Your task to perform on an android device: What's the weather? Image 0: 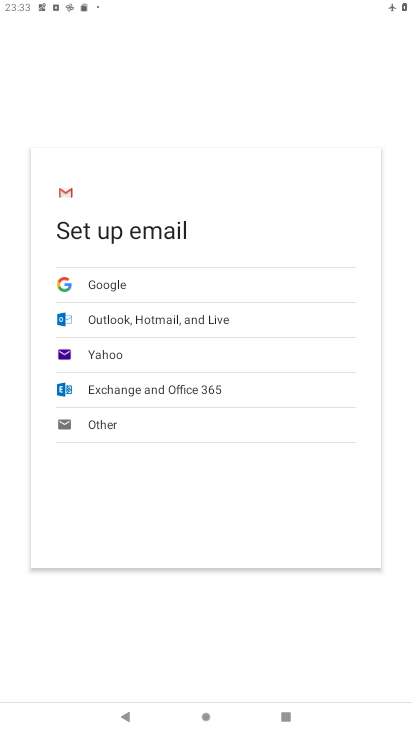
Step 0: press home button
Your task to perform on an android device: What's the weather? Image 1: 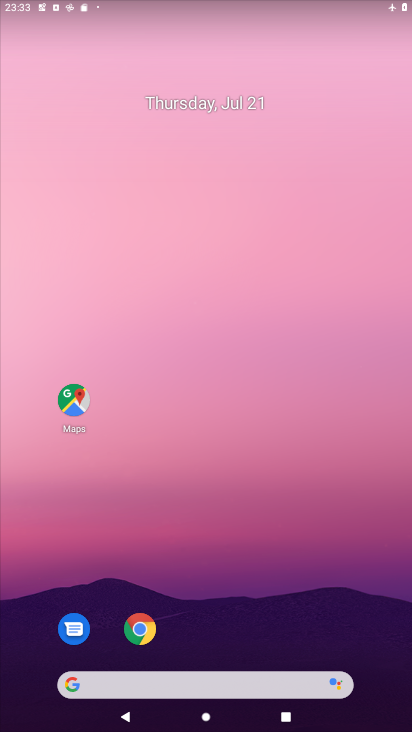
Step 1: drag from (164, 584) to (200, 100)
Your task to perform on an android device: What's the weather? Image 2: 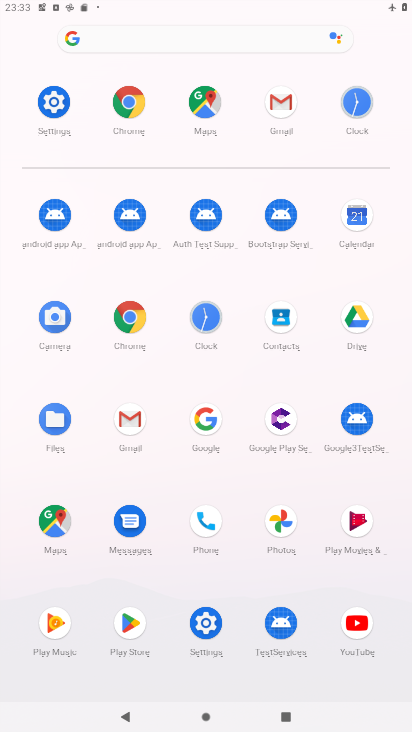
Step 2: click (126, 327)
Your task to perform on an android device: What's the weather? Image 3: 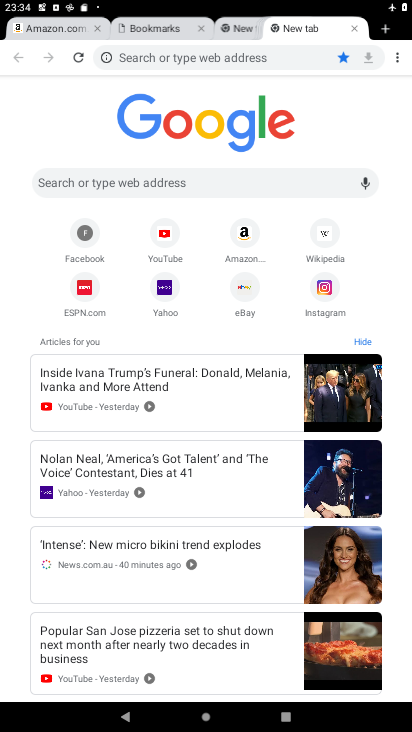
Step 3: click (218, 60)
Your task to perform on an android device: What's the weather? Image 4: 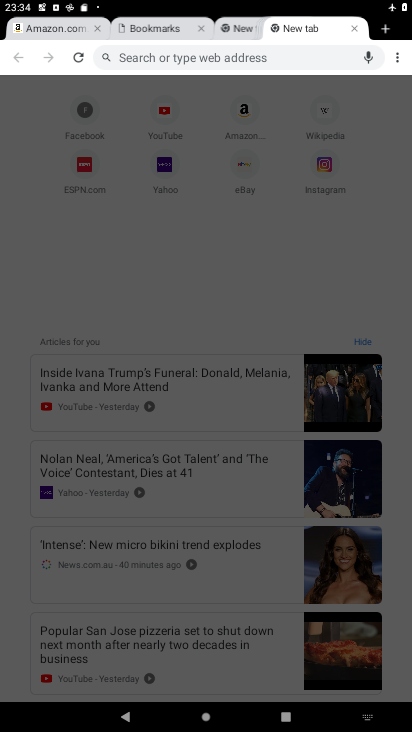
Step 4: type "weather"
Your task to perform on an android device: What's the weather? Image 5: 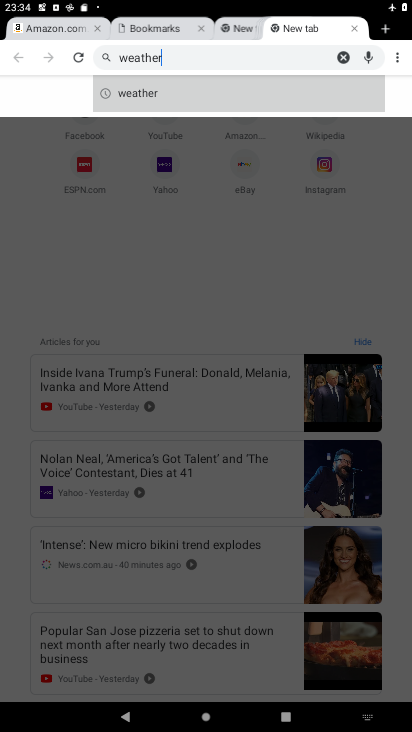
Step 5: type ""
Your task to perform on an android device: What's the weather? Image 6: 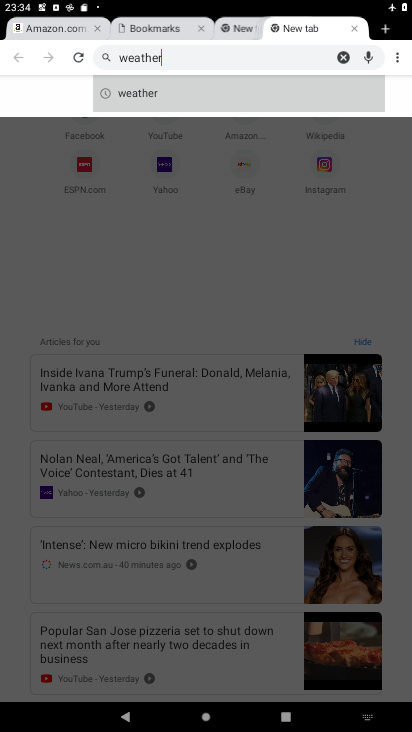
Step 6: click (169, 102)
Your task to perform on an android device: What's the weather? Image 7: 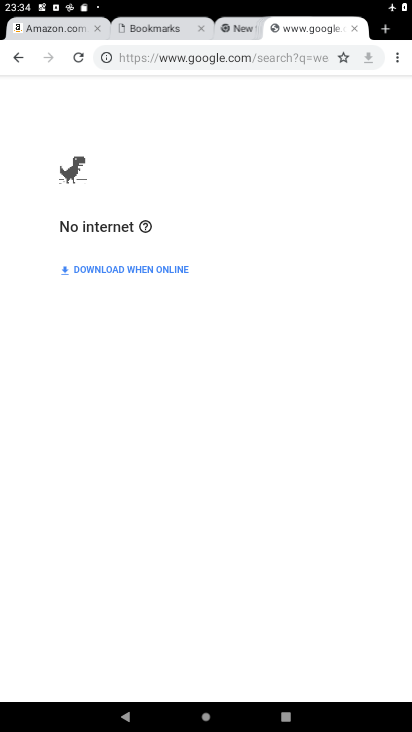
Step 7: task complete